Your task to perform on an android device: Turn on the flashlight Image 0: 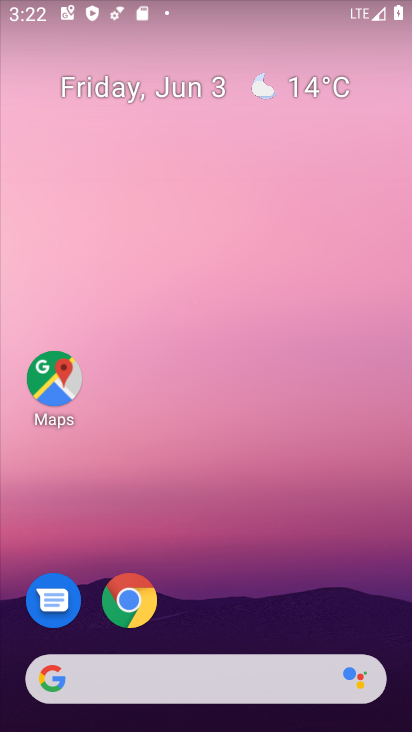
Step 0: drag from (313, 6) to (245, 517)
Your task to perform on an android device: Turn on the flashlight Image 1: 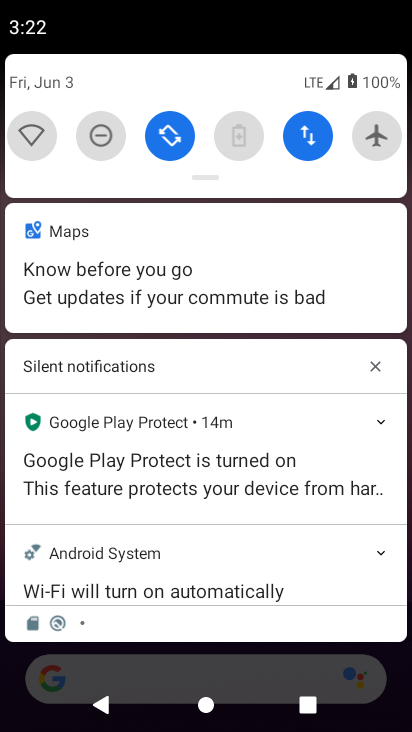
Step 1: drag from (232, 177) to (205, 413)
Your task to perform on an android device: Turn on the flashlight Image 2: 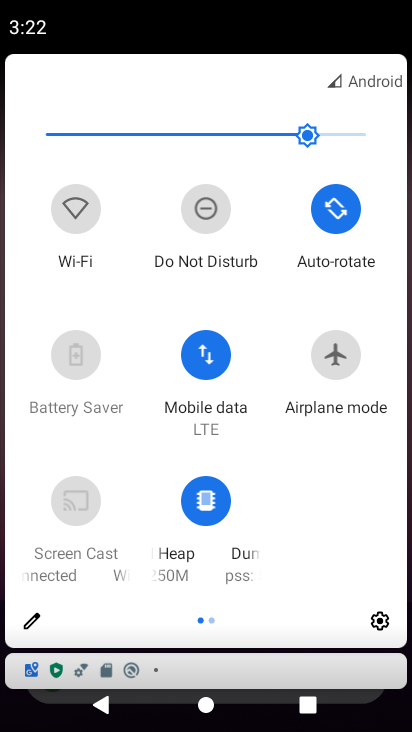
Step 2: click (31, 616)
Your task to perform on an android device: Turn on the flashlight Image 3: 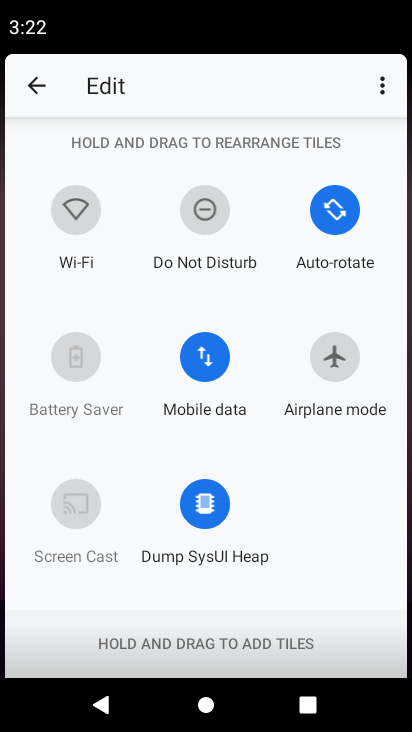
Step 3: task complete